Your task to perform on an android device: Open notification settings Image 0: 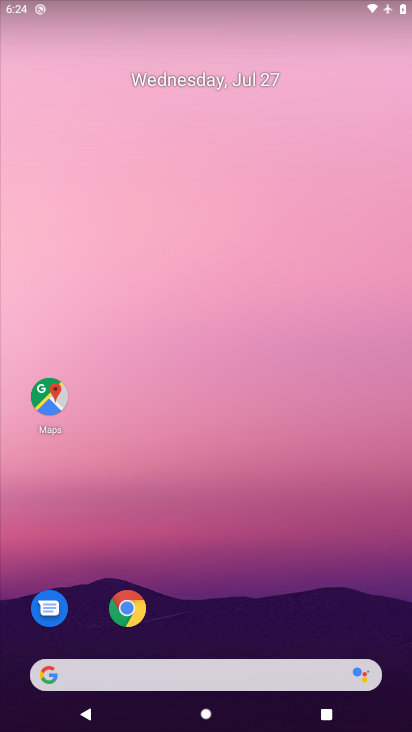
Step 0: press home button
Your task to perform on an android device: Open notification settings Image 1: 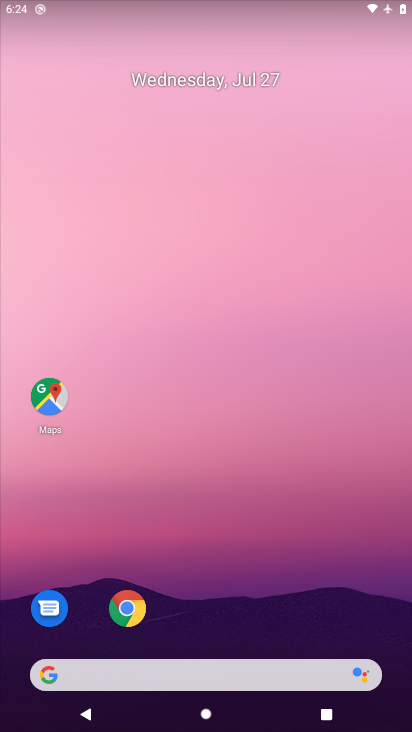
Step 1: click (191, 623)
Your task to perform on an android device: Open notification settings Image 2: 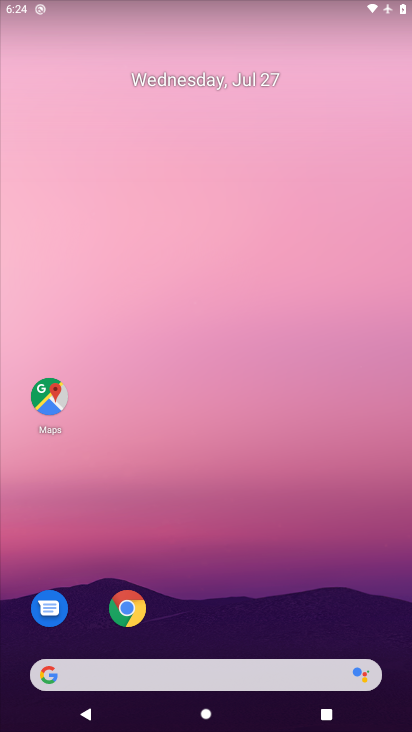
Step 2: drag from (191, 637) to (158, 414)
Your task to perform on an android device: Open notification settings Image 3: 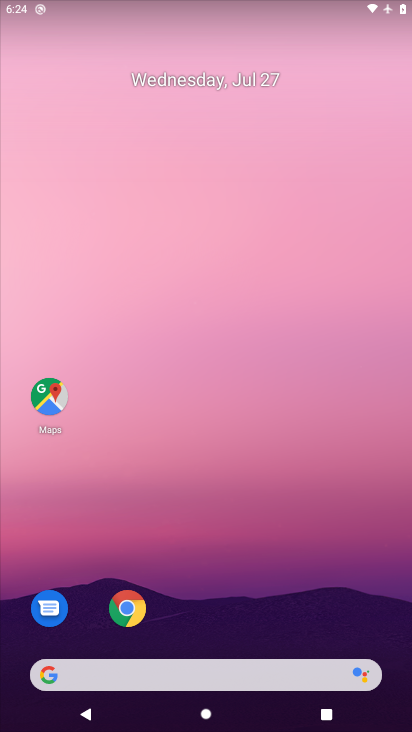
Step 3: drag from (230, 634) to (200, 85)
Your task to perform on an android device: Open notification settings Image 4: 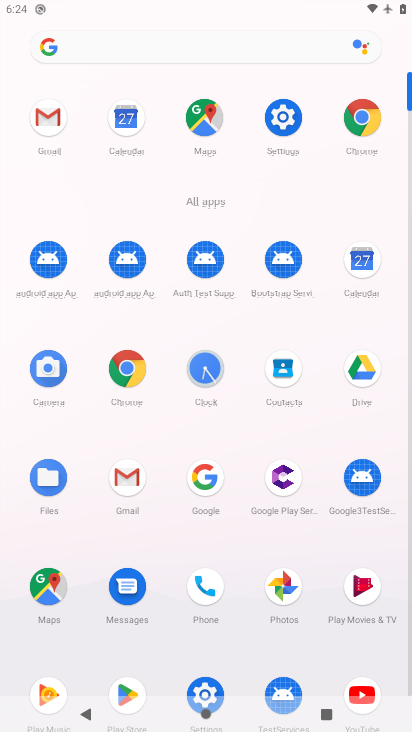
Step 4: click (278, 121)
Your task to perform on an android device: Open notification settings Image 5: 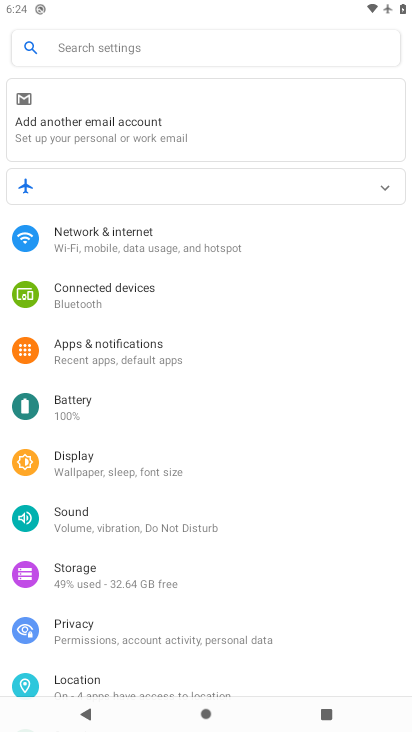
Step 5: click (88, 357)
Your task to perform on an android device: Open notification settings Image 6: 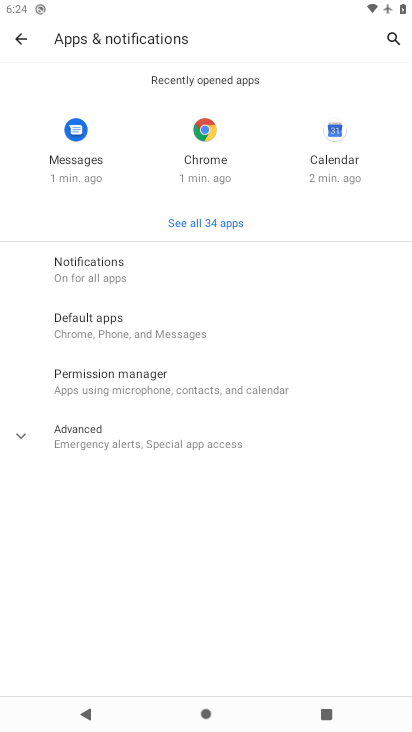
Step 6: click (76, 273)
Your task to perform on an android device: Open notification settings Image 7: 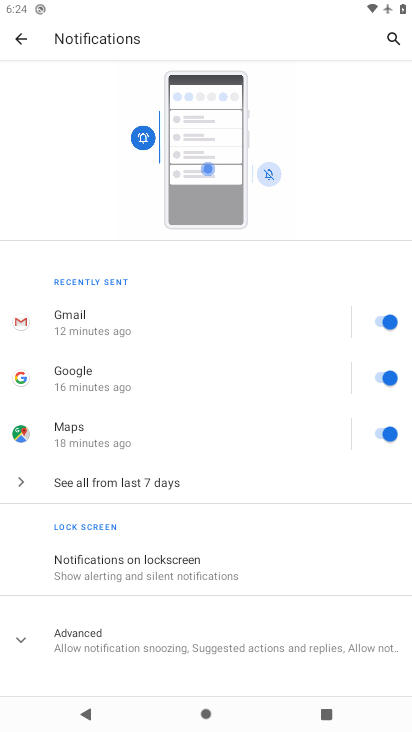
Step 7: task complete